Your task to perform on an android device: Go to network settings Image 0: 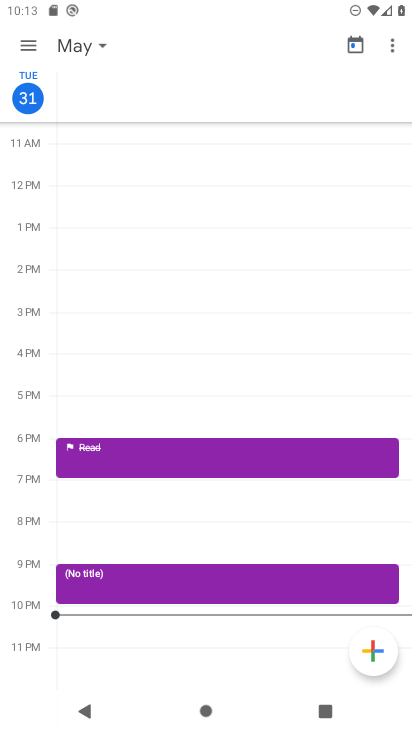
Step 0: press home button
Your task to perform on an android device: Go to network settings Image 1: 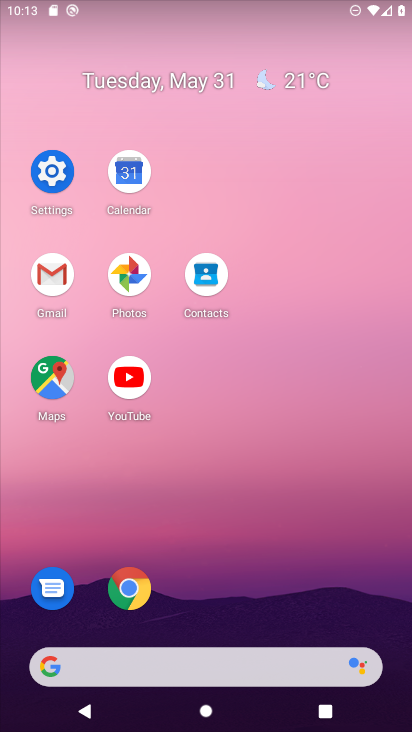
Step 1: click (57, 153)
Your task to perform on an android device: Go to network settings Image 2: 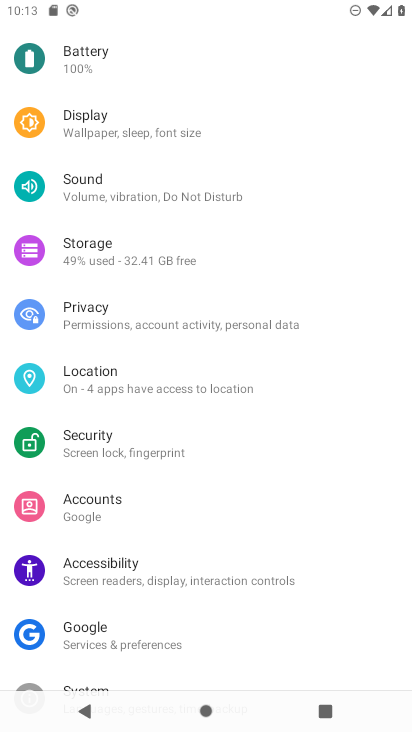
Step 2: drag from (266, 94) to (302, 562)
Your task to perform on an android device: Go to network settings Image 3: 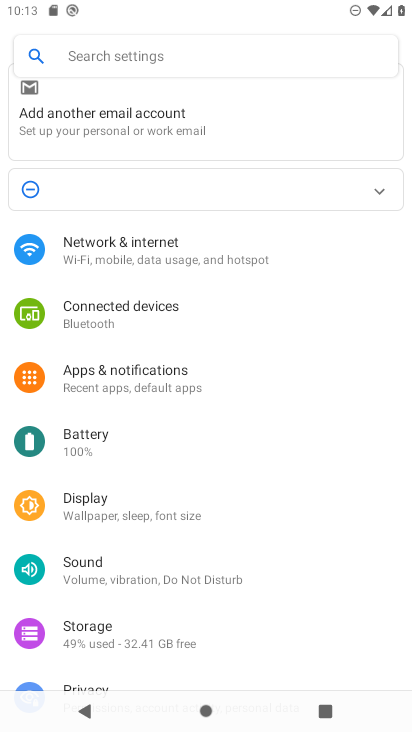
Step 3: click (168, 246)
Your task to perform on an android device: Go to network settings Image 4: 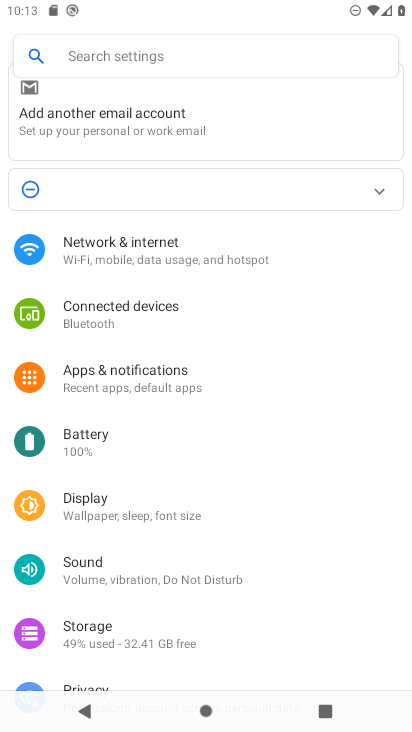
Step 4: task complete